Your task to perform on an android device: Search for Mexican restaurants on Maps Image 0: 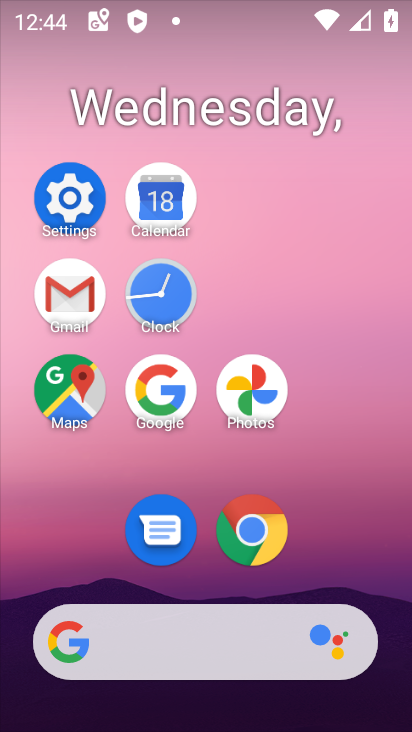
Step 0: click (71, 388)
Your task to perform on an android device: Search for Mexican restaurants on Maps Image 1: 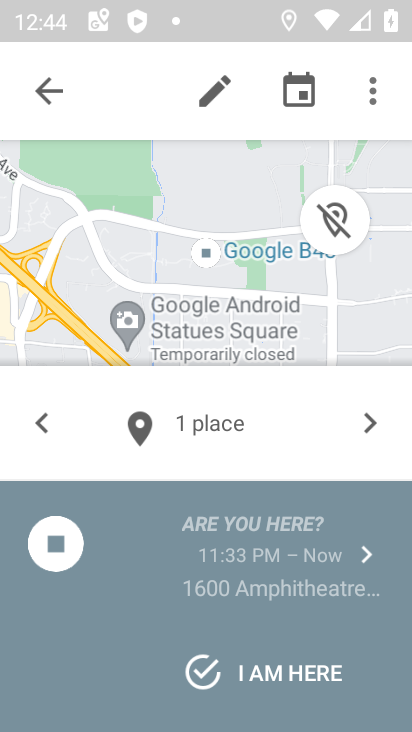
Step 1: click (63, 94)
Your task to perform on an android device: Search for Mexican restaurants on Maps Image 2: 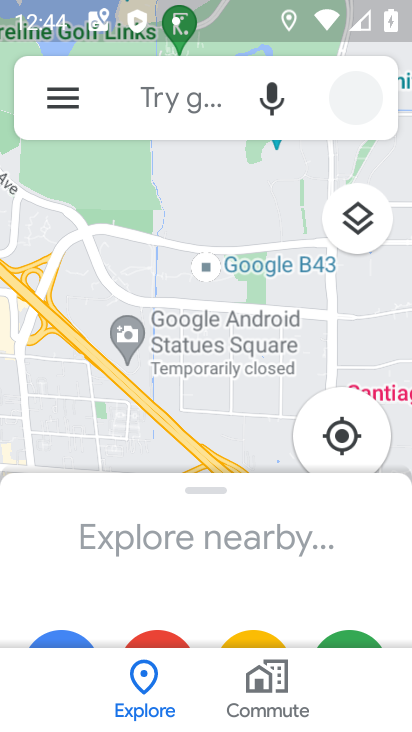
Step 2: click (194, 102)
Your task to perform on an android device: Search for Mexican restaurants on Maps Image 3: 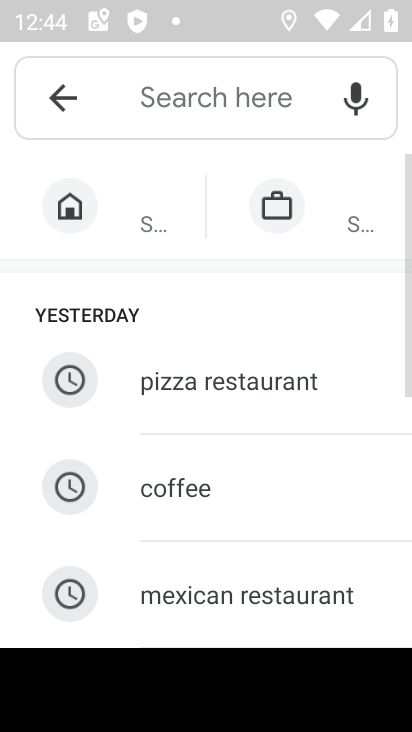
Step 3: click (206, 605)
Your task to perform on an android device: Search for Mexican restaurants on Maps Image 4: 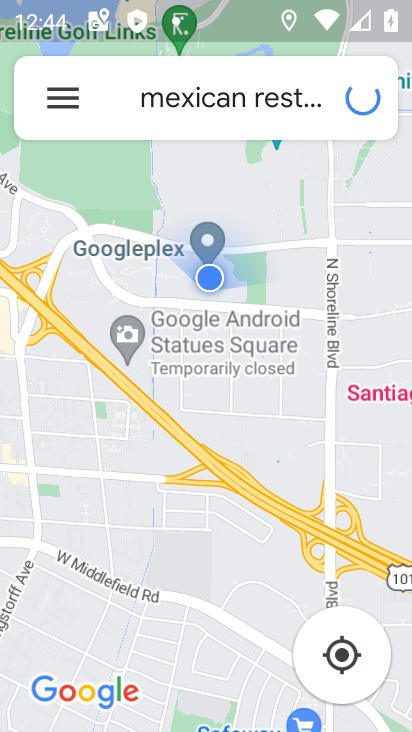
Step 4: task complete